Your task to perform on an android device: Go to Yahoo.com Image 0: 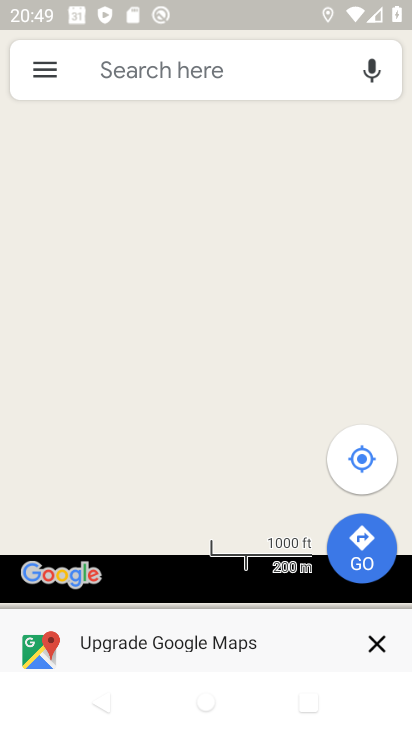
Step 0: press home button
Your task to perform on an android device: Go to Yahoo.com Image 1: 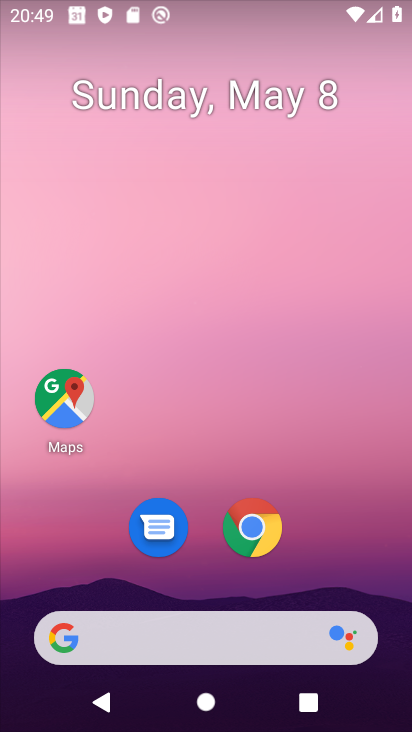
Step 1: click (252, 530)
Your task to perform on an android device: Go to Yahoo.com Image 2: 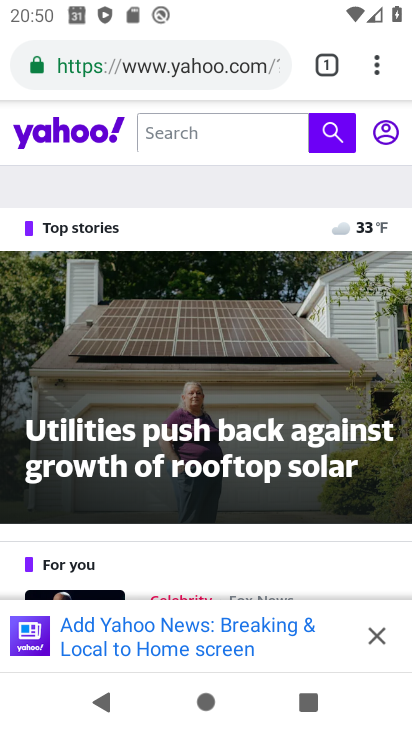
Step 2: task complete